Your task to perform on an android device: Is it going to rain tomorrow? Image 0: 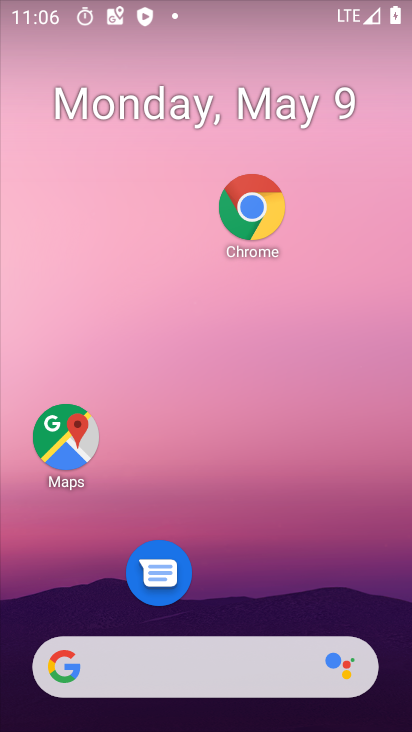
Step 0: drag from (302, 638) to (258, 27)
Your task to perform on an android device: Is it going to rain tomorrow? Image 1: 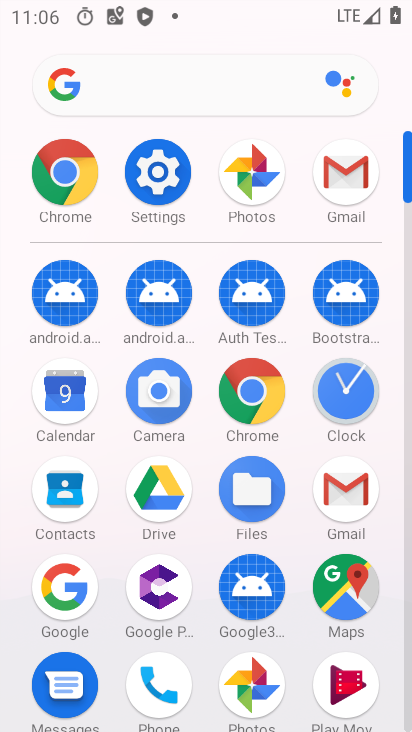
Step 1: drag from (188, 538) to (216, 283)
Your task to perform on an android device: Is it going to rain tomorrow? Image 2: 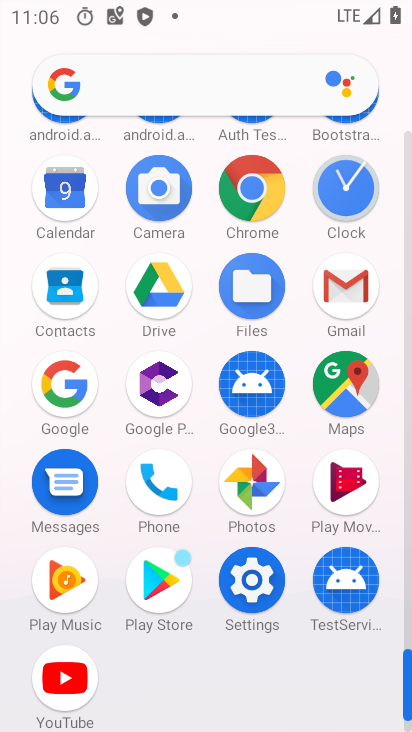
Step 2: click (42, 417)
Your task to perform on an android device: Is it going to rain tomorrow? Image 3: 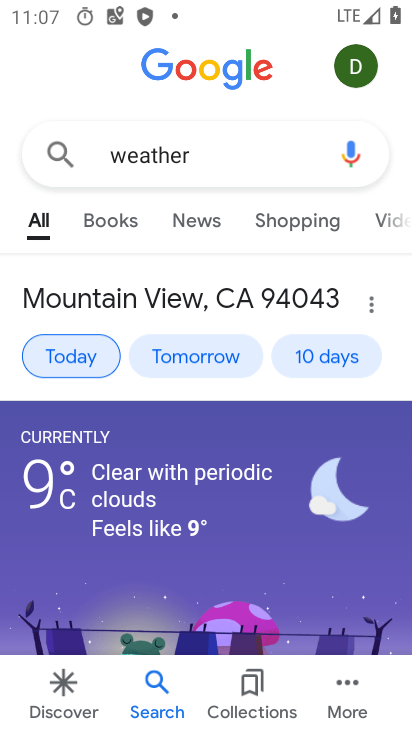
Step 3: click (204, 359)
Your task to perform on an android device: Is it going to rain tomorrow? Image 4: 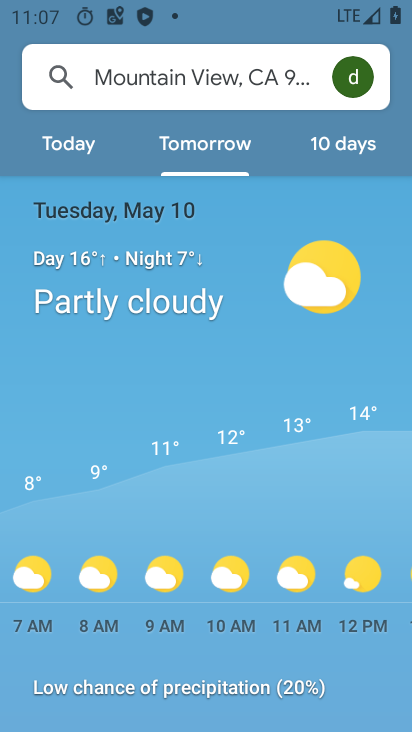
Step 4: task complete